Your task to perform on an android device: open wifi settings Image 0: 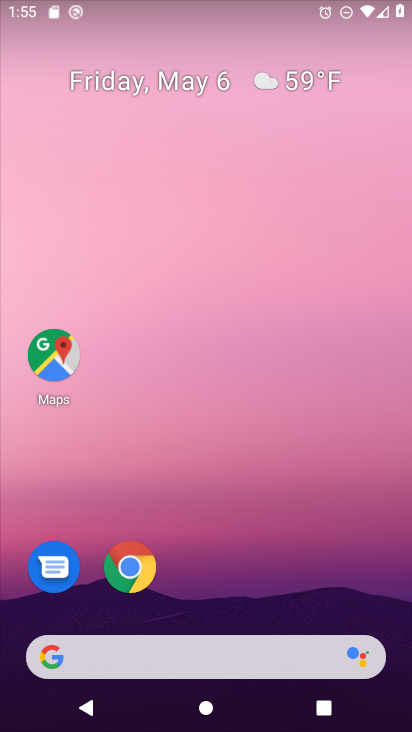
Step 0: drag from (221, 11) to (206, 456)
Your task to perform on an android device: open wifi settings Image 1: 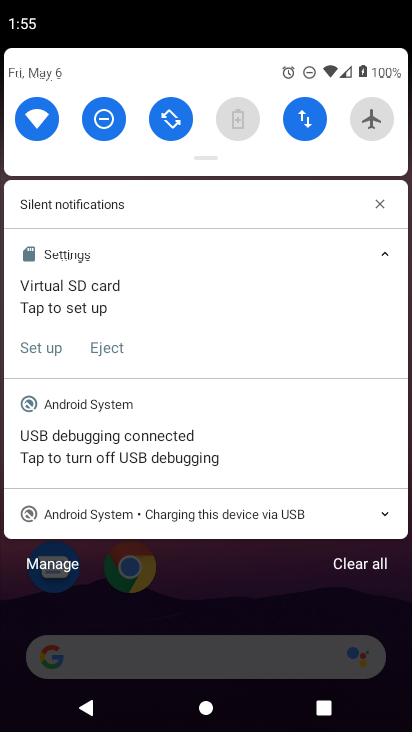
Step 1: click (36, 129)
Your task to perform on an android device: open wifi settings Image 2: 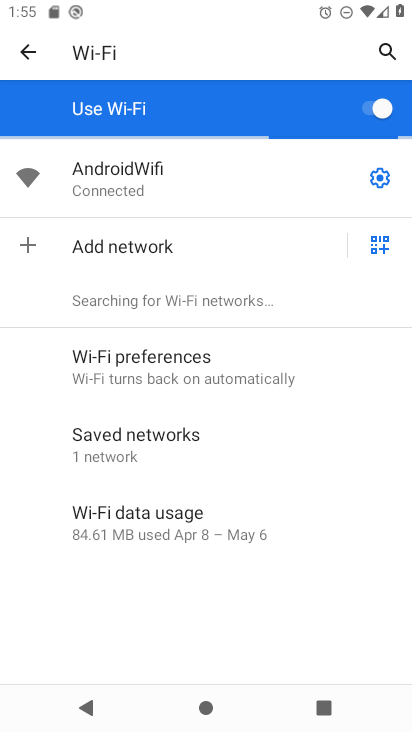
Step 2: task complete